Your task to perform on an android device: Empty the shopping cart on amazon. Search for "usb-a to usb-b" on amazon, select the first entry, and add it to the cart. Image 0: 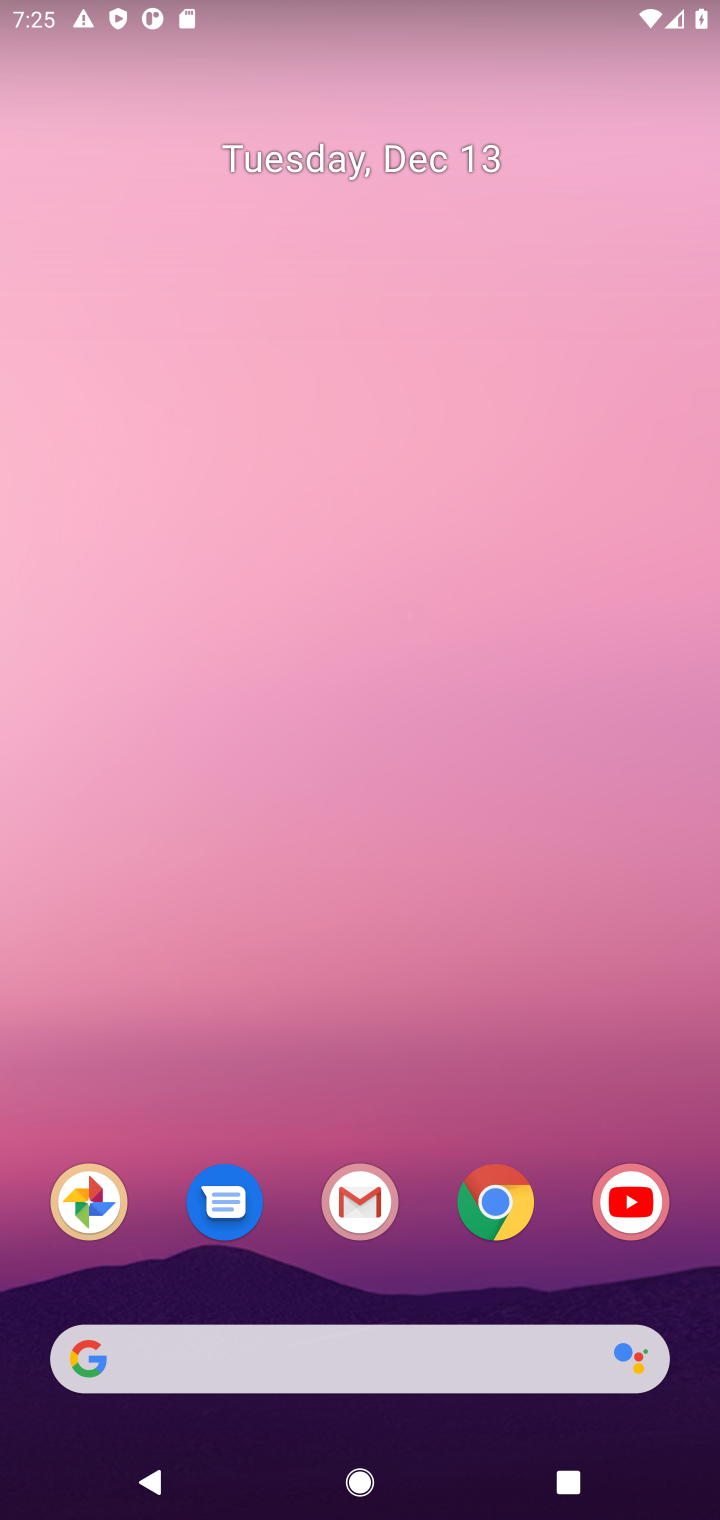
Step 0: click (505, 1207)
Your task to perform on an android device: Empty the shopping cart on amazon. Search for "usb-a to usb-b" on amazon, select the first entry, and add it to the cart. Image 1: 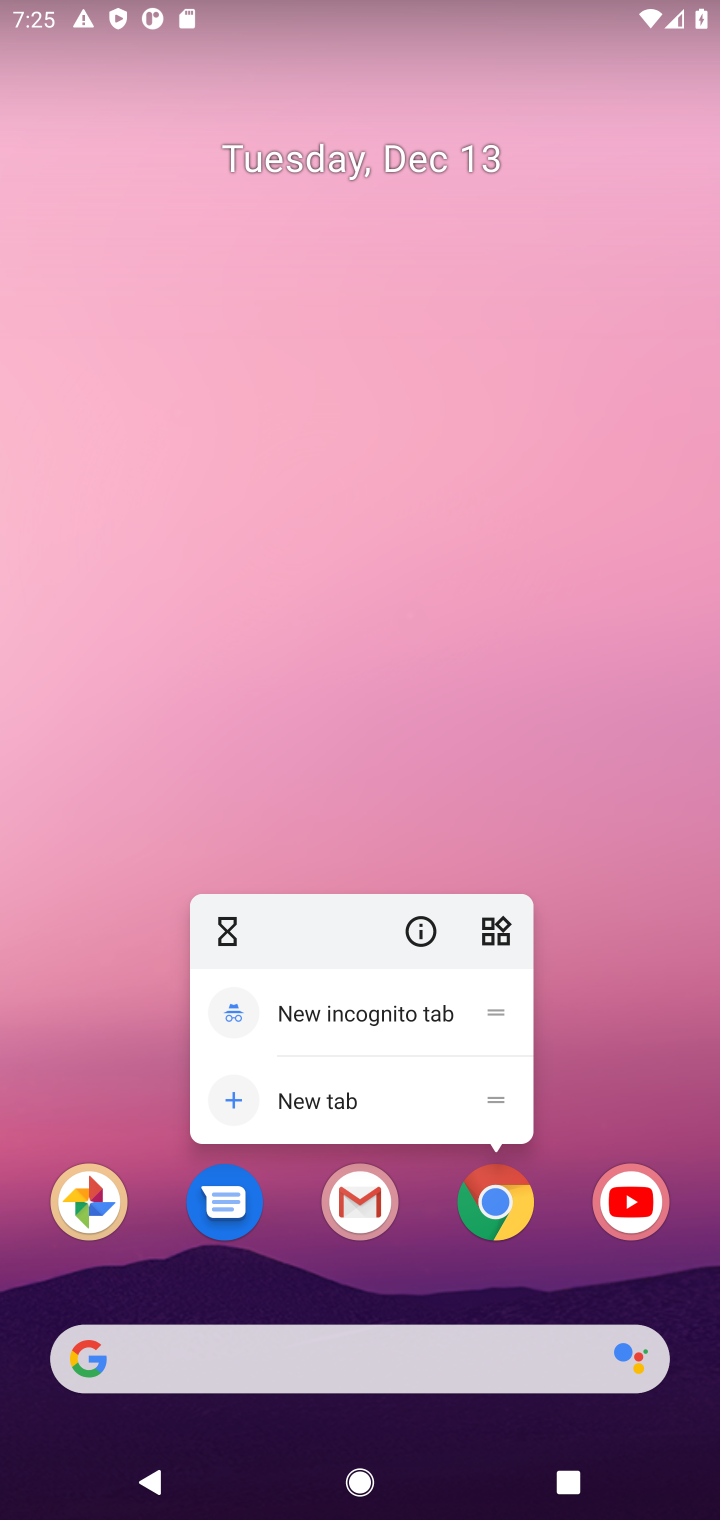
Step 1: click (505, 1207)
Your task to perform on an android device: Empty the shopping cart on amazon. Search for "usb-a to usb-b" on amazon, select the first entry, and add it to the cart. Image 2: 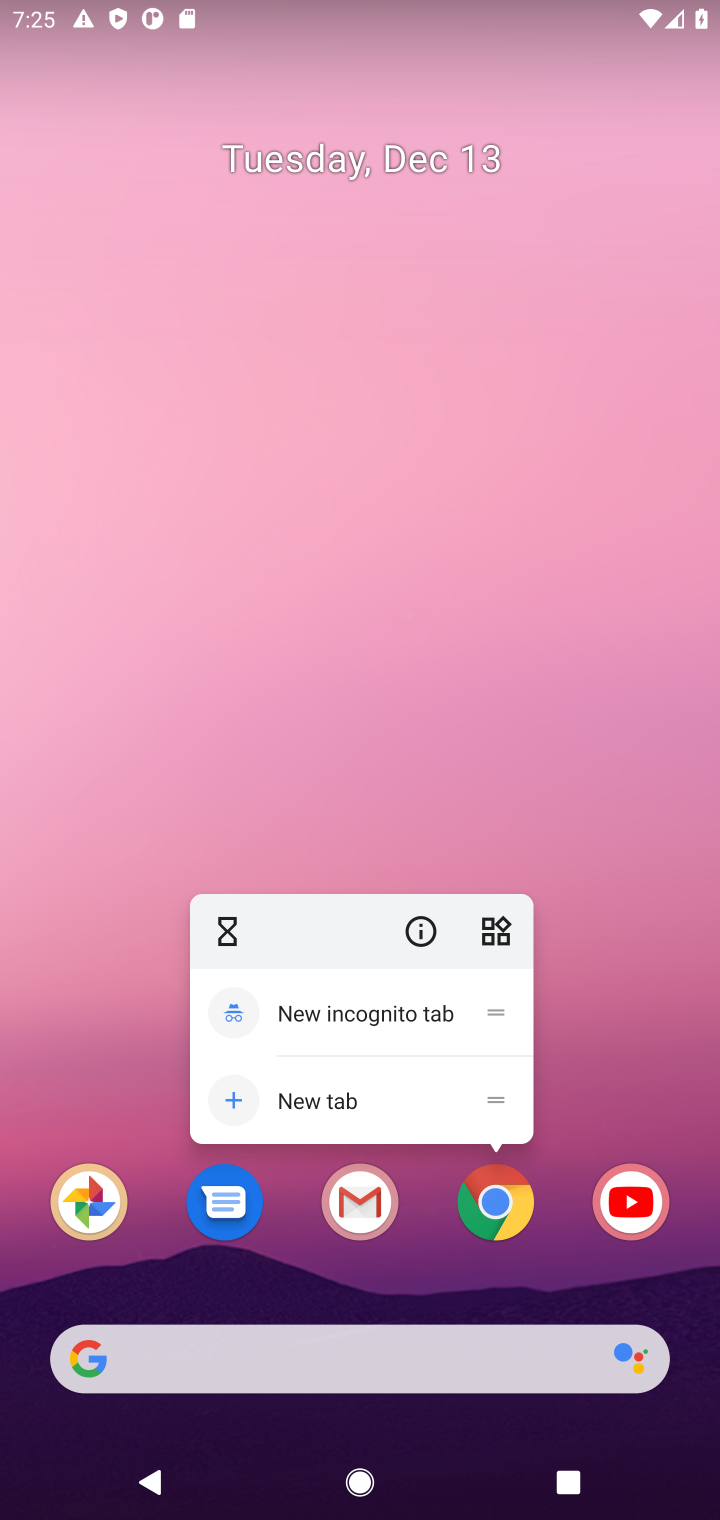
Step 2: click (505, 1207)
Your task to perform on an android device: Empty the shopping cart on amazon. Search for "usb-a to usb-b" on amazon, select the first entry, and add it to the cart. Image 3: 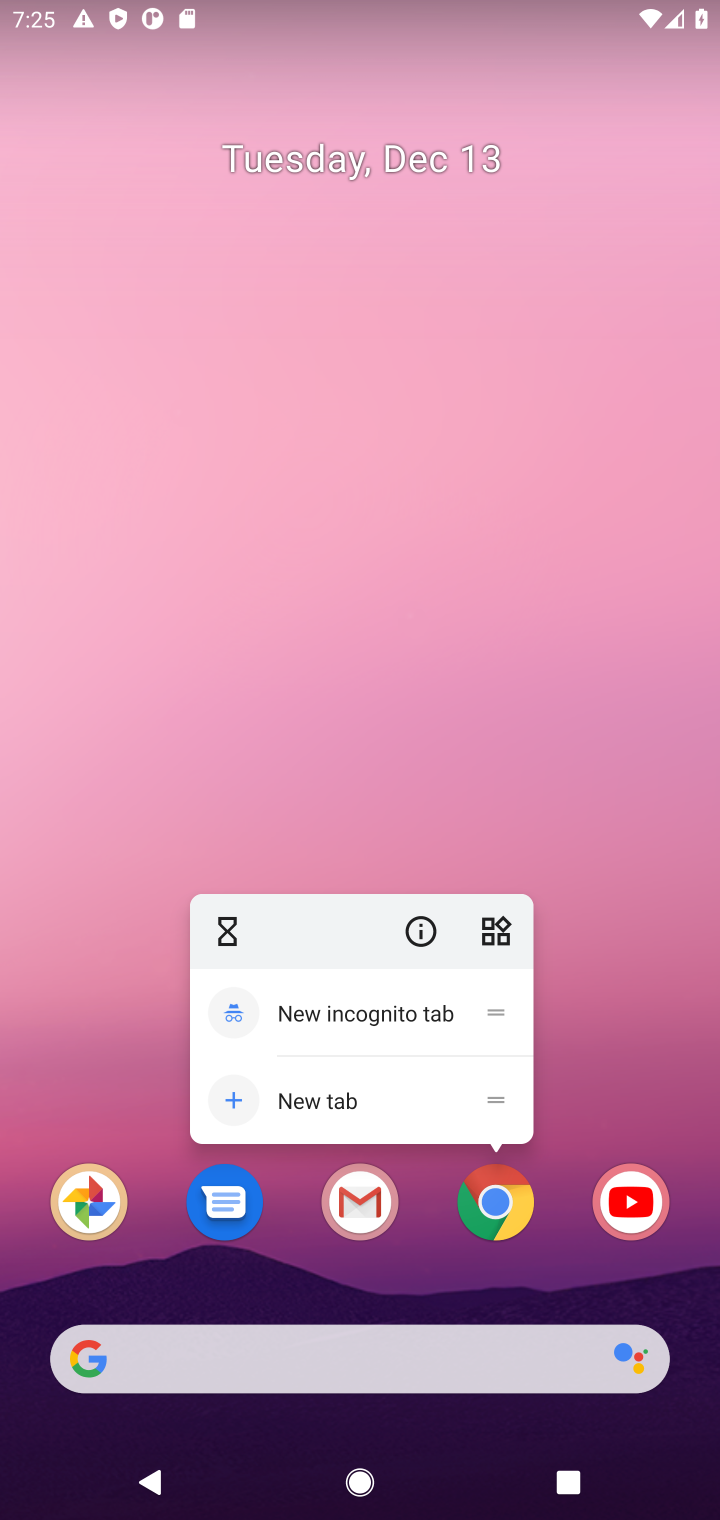
Step 3: click (613, 897)
Your task to perform on an android device: Empty the shopping cart on amazon. Search for "usb-a to usb-b" on amazon, select the first entry, and add it to the cart. Image 4: 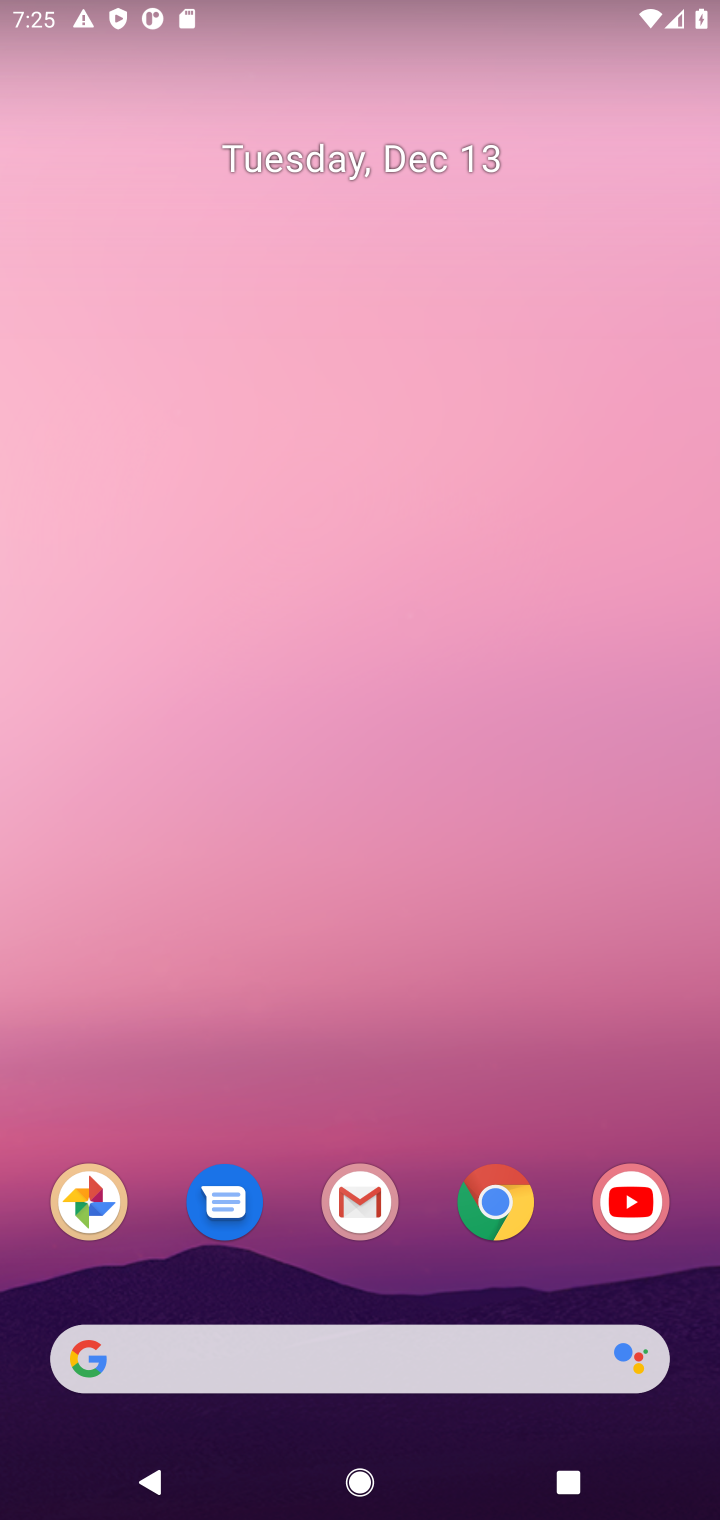
Step 4: click (502, 1207)
Your task to perform on an android device: Empty the shopping cart on amazon. Search for "usb-a to usb-b" on amazon, select the first entry, and add it to the cart. Image 5: 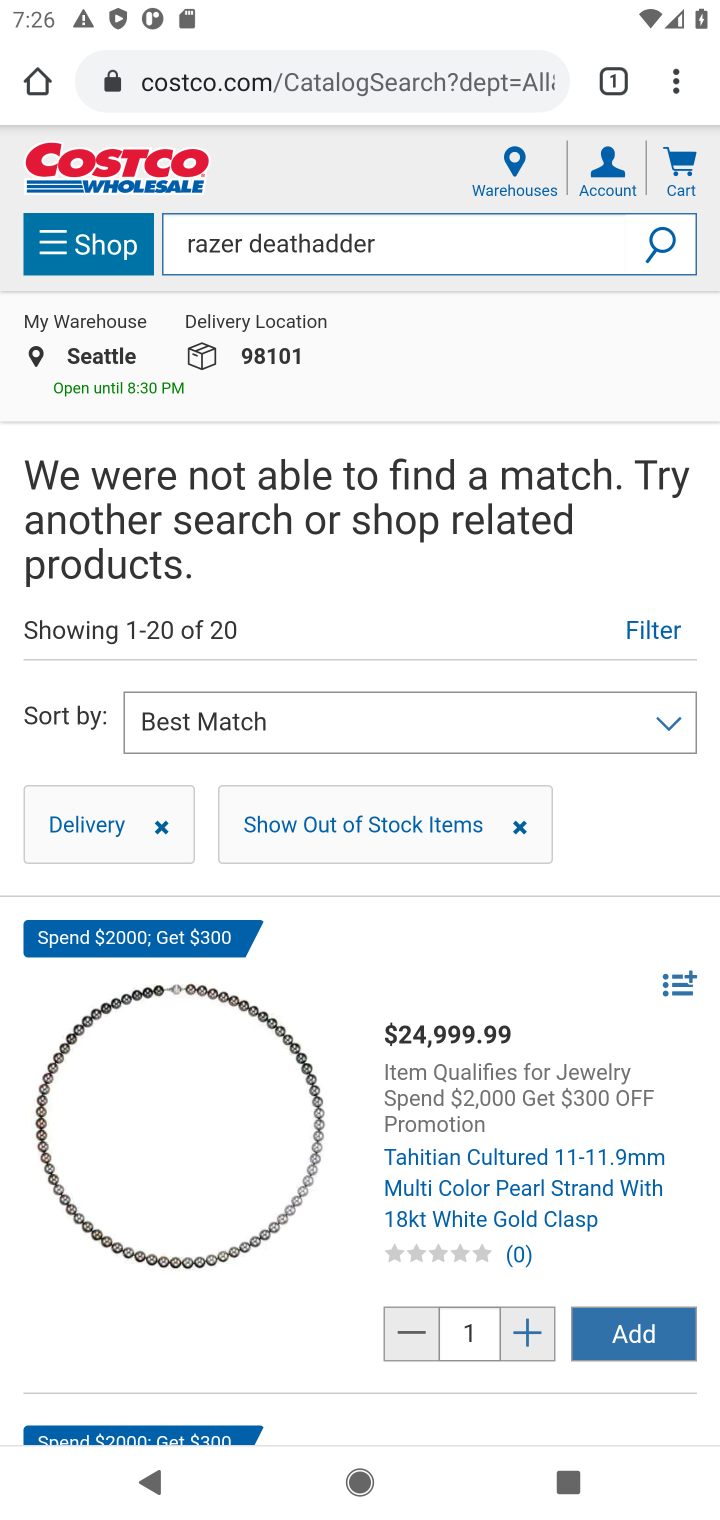
Step 5: click (325, 92)
Your task to perform on an android device: Empty the shopping cart on amazon. Search for "usb-a to usb-b" on amazon, select the first entry, and add it to the cart. Image 6: 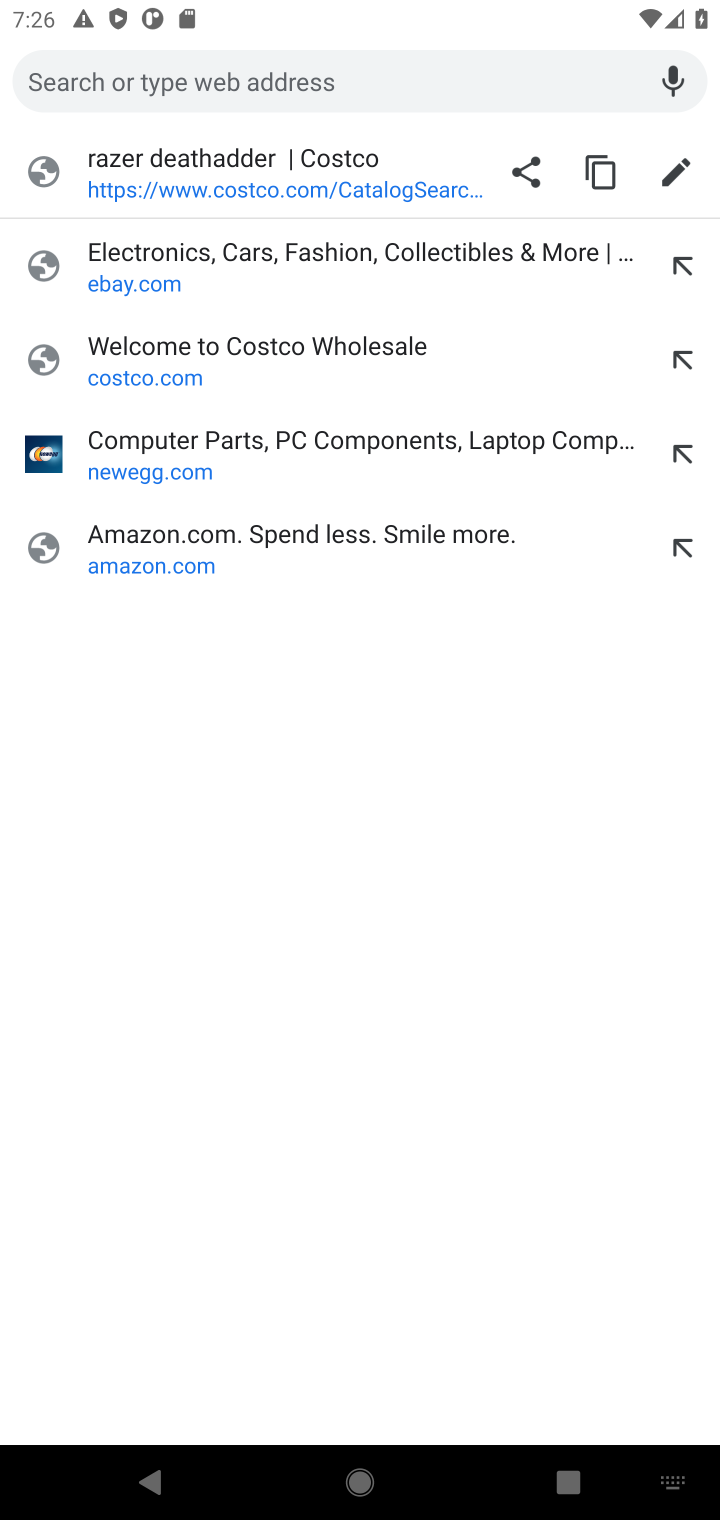
Step 6: click (133, 558)
Your task to perform on an android device: Empty the shopping cart on amazon. Search for "usb-a to usb-b" on amazon, select the first entry, and add it to the cart. Image 7: 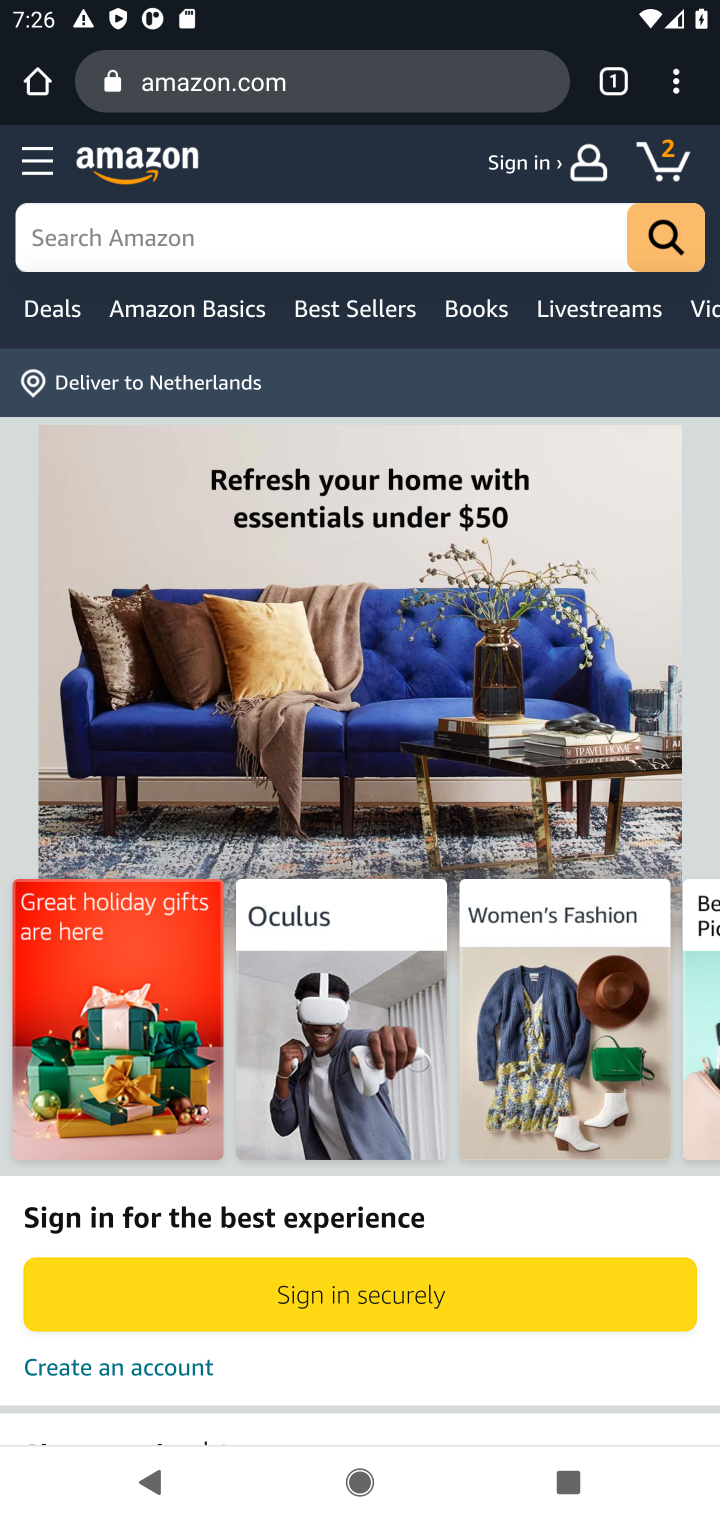
Step 7: click (664, 165)
Your task to perform on an android device: Empty the shopping cart on amazon. Search for "usb-a to usb-b" on amazon, select the first entry, and add it to the cart. Image 8: 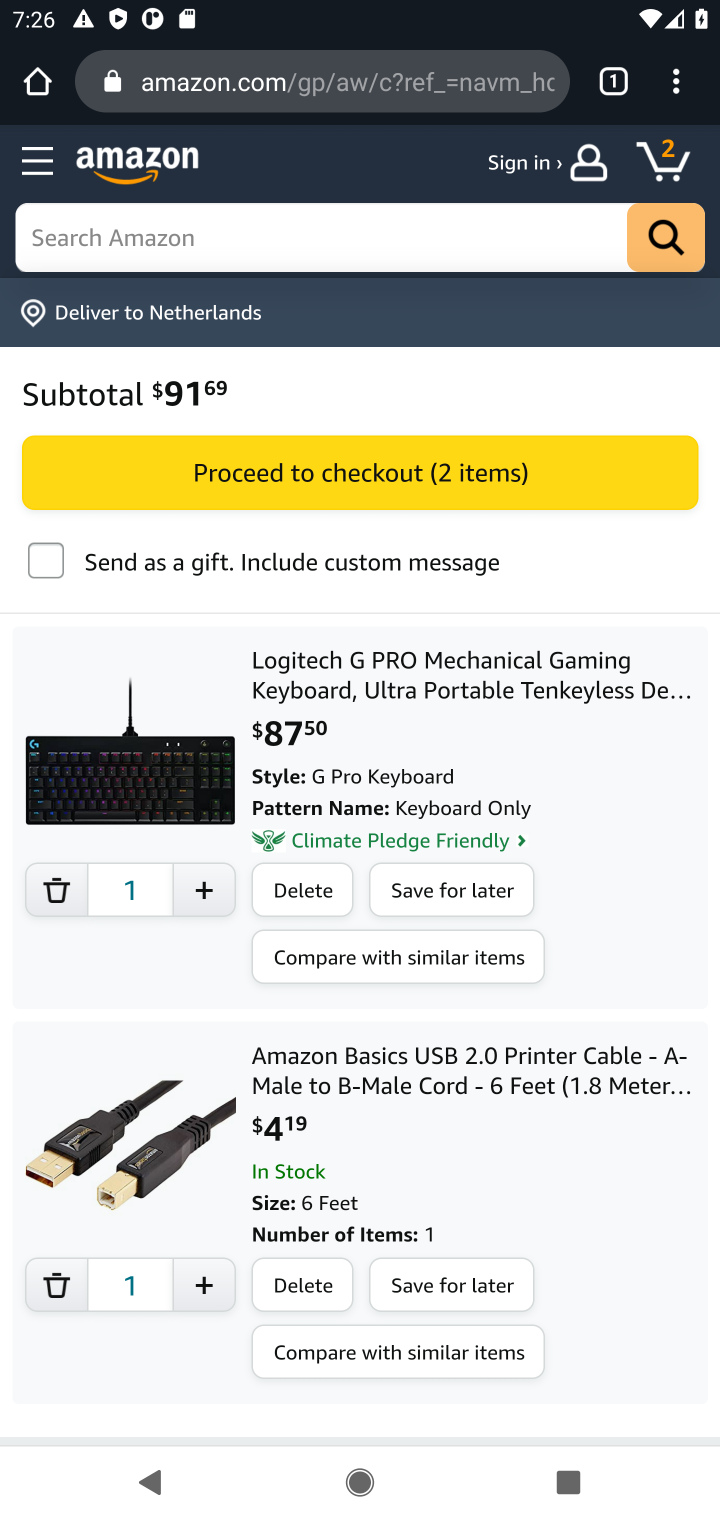
Step 8: click (317, 883)
Your task to perform on an android device: Empty the shopping cart on amazon. Search for "usb-a to usb-b" on amazon, select the first entry, and add it to the cart. Image 9: 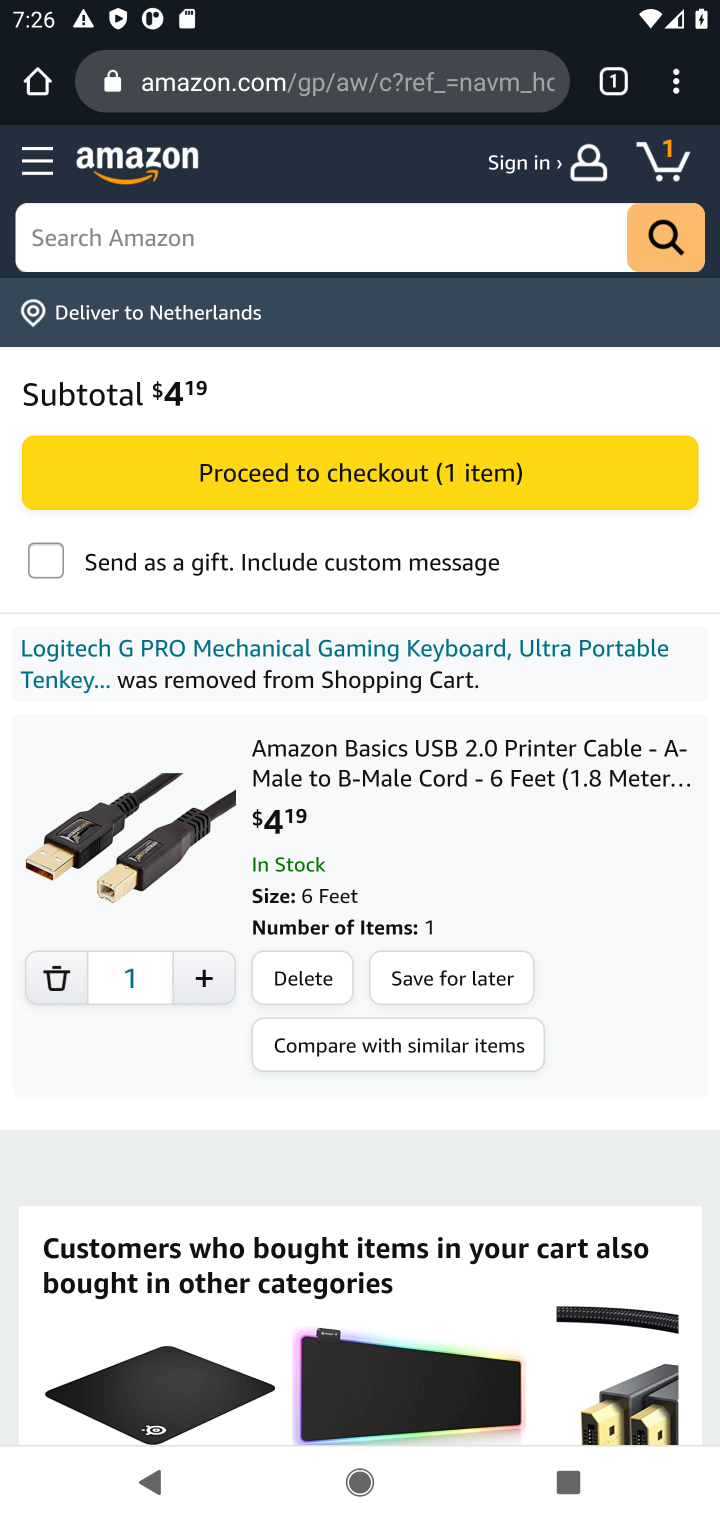
Step 9: click (293, 981)
Your task to perform on an android device: Empty the shopping cart on amazon. Search for "usb-a to usb-b" on amazon, select the first entry, and add it to the cart. Image 10: 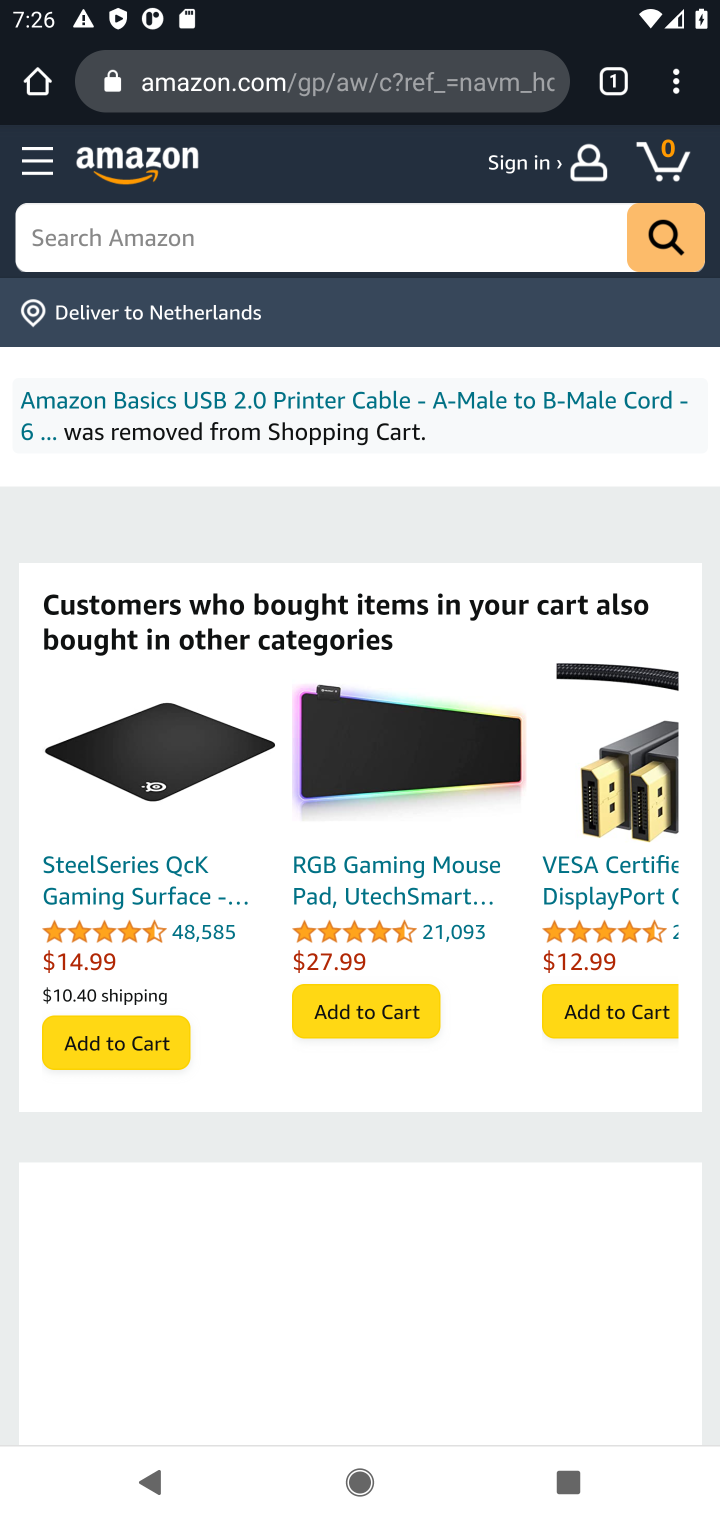
Step 10: click (96, 252)
Your task to perform on an android device: Empty the shopping cart on amazon. Search for "usb-a to usb-b" on amazon, select the first entry, and add it to the cart. Image 11: 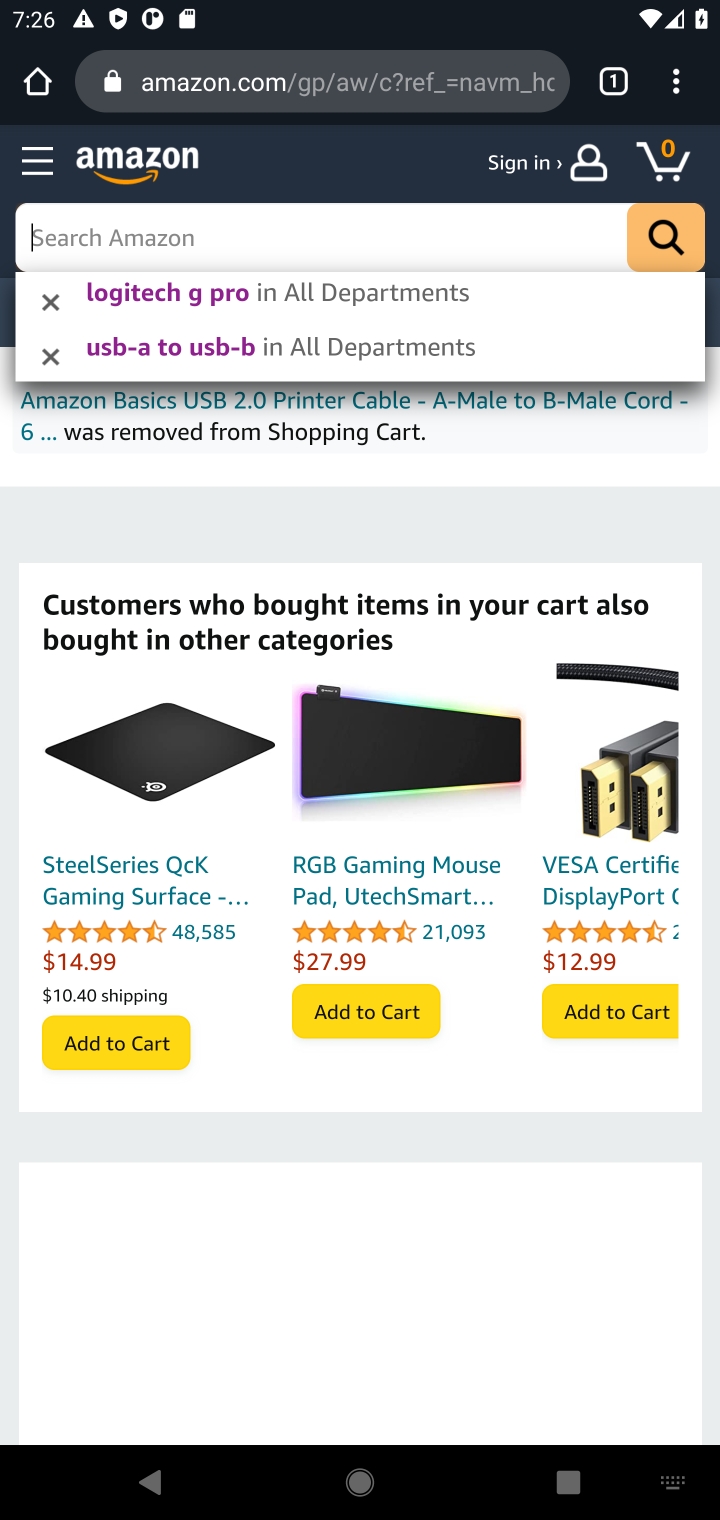
Step 11: type "usb-a to usb-b"
Your task to perform on an android device: Empty the shopping cart on amazon. Search for "usb-a to usb-b" on amazon, select the first entry, and add it to the cart. Image 12: 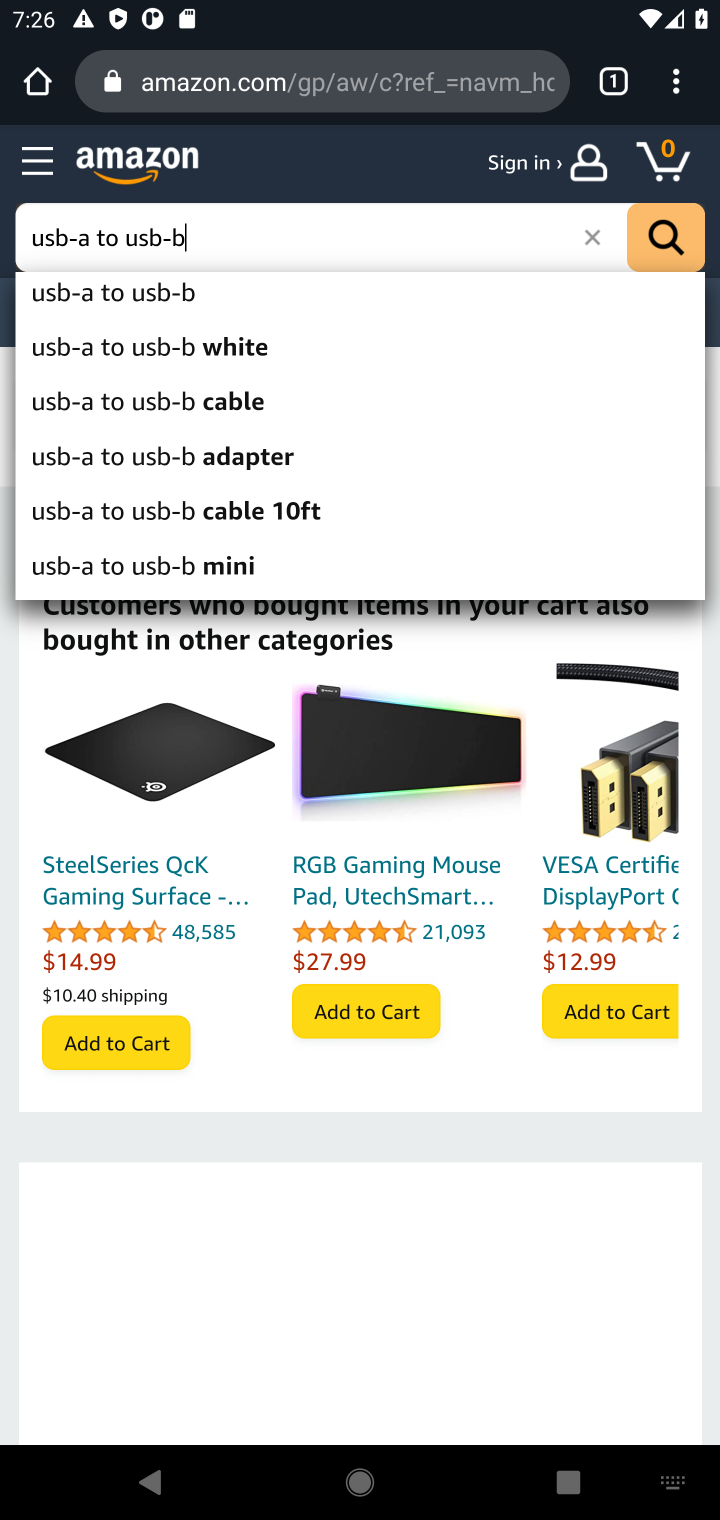
Step 12: click (165, 303)
Your task to perform on an android device: Empty the shopping cart on amazon. Search for "usb-a to usb-b" on amazon, select the first entry, and add it to the cart. Image 13: 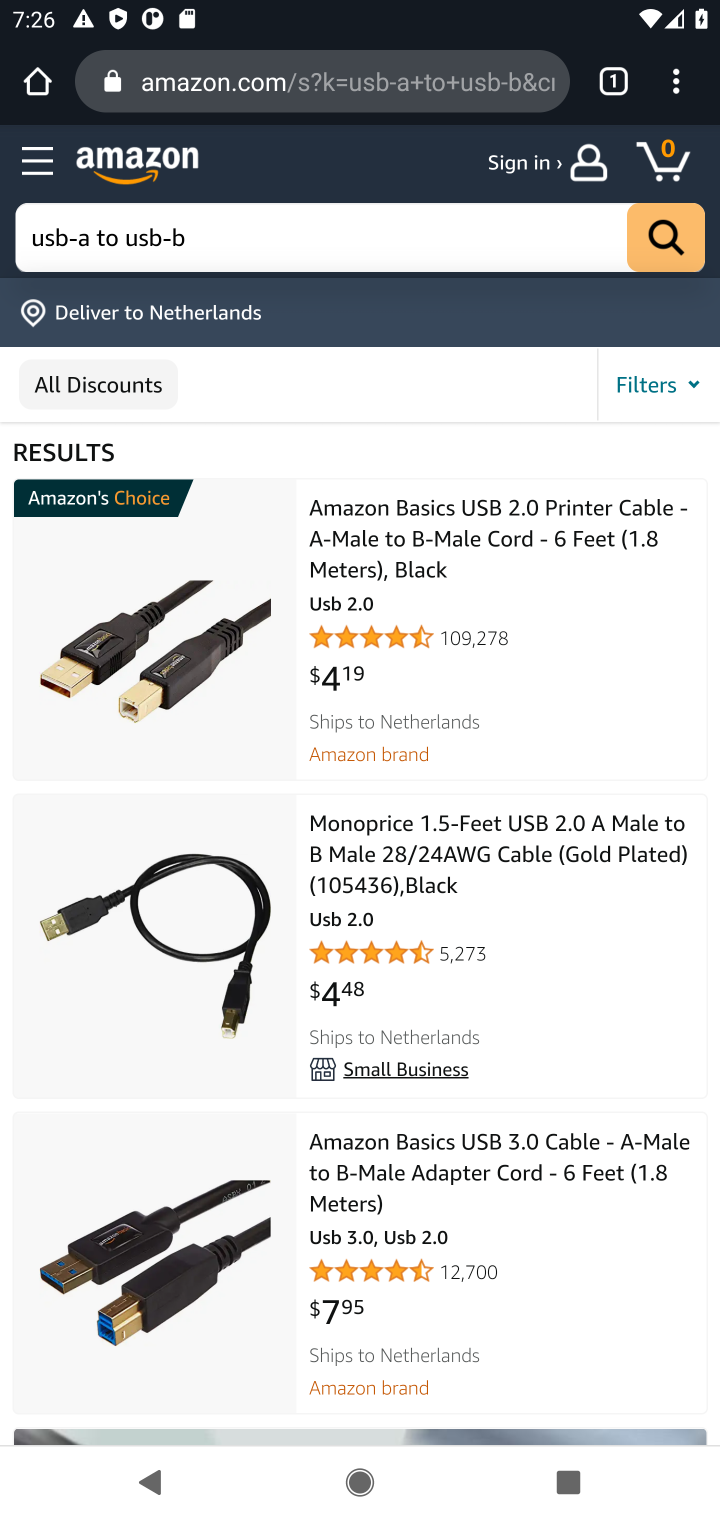
Step 13: click (386, 558)
Your task to perform on an android device: Empty the shopping cart on amazon. Search for "usb-a to usb-b" on amazon, select the first entry, and add it to the cart. Image 14: 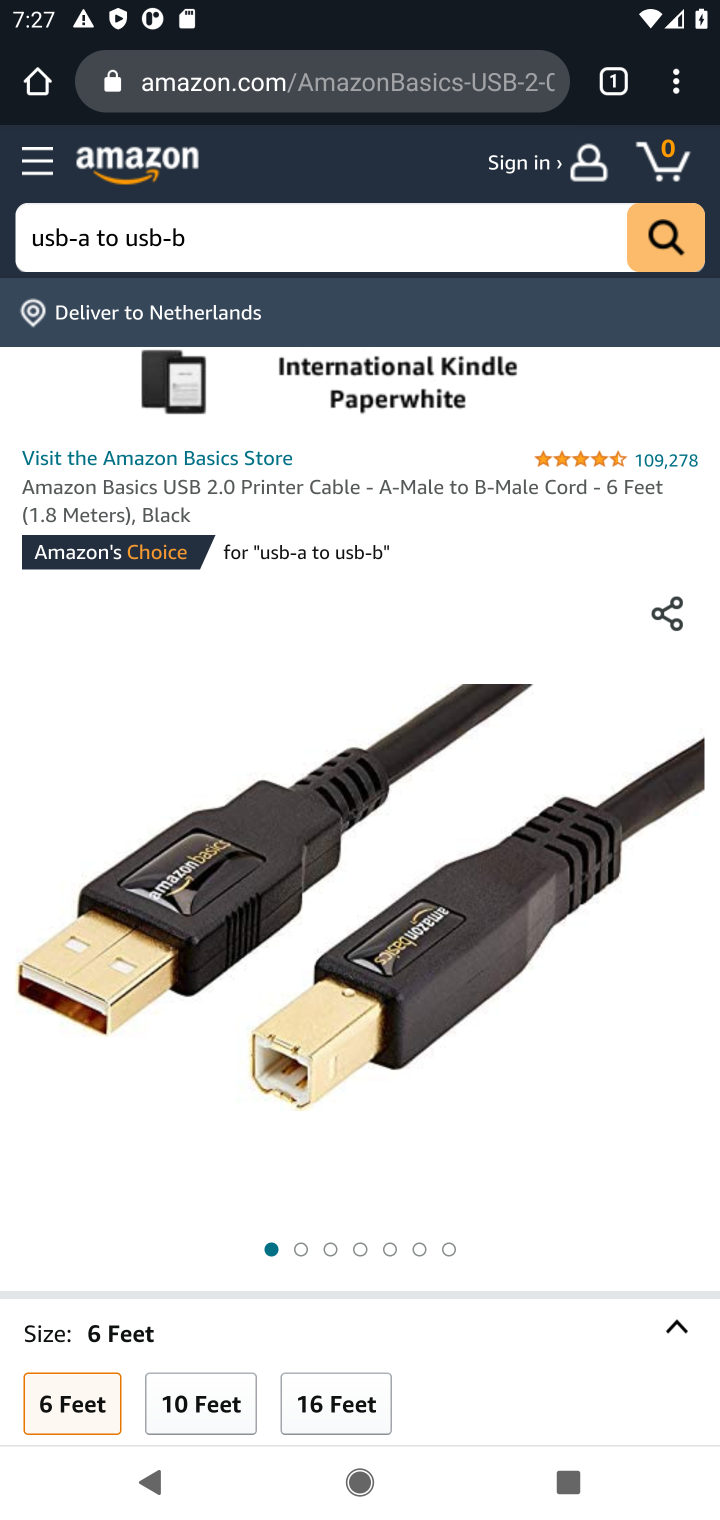
Step 14: drag from (287, 1006) to (234, 601)
Your task to perform on an android device: Empty the shopping cart on amazon. Search for "usb-a to usb-b" on amazon, select the first entry, and add it to the cart. Image 15: 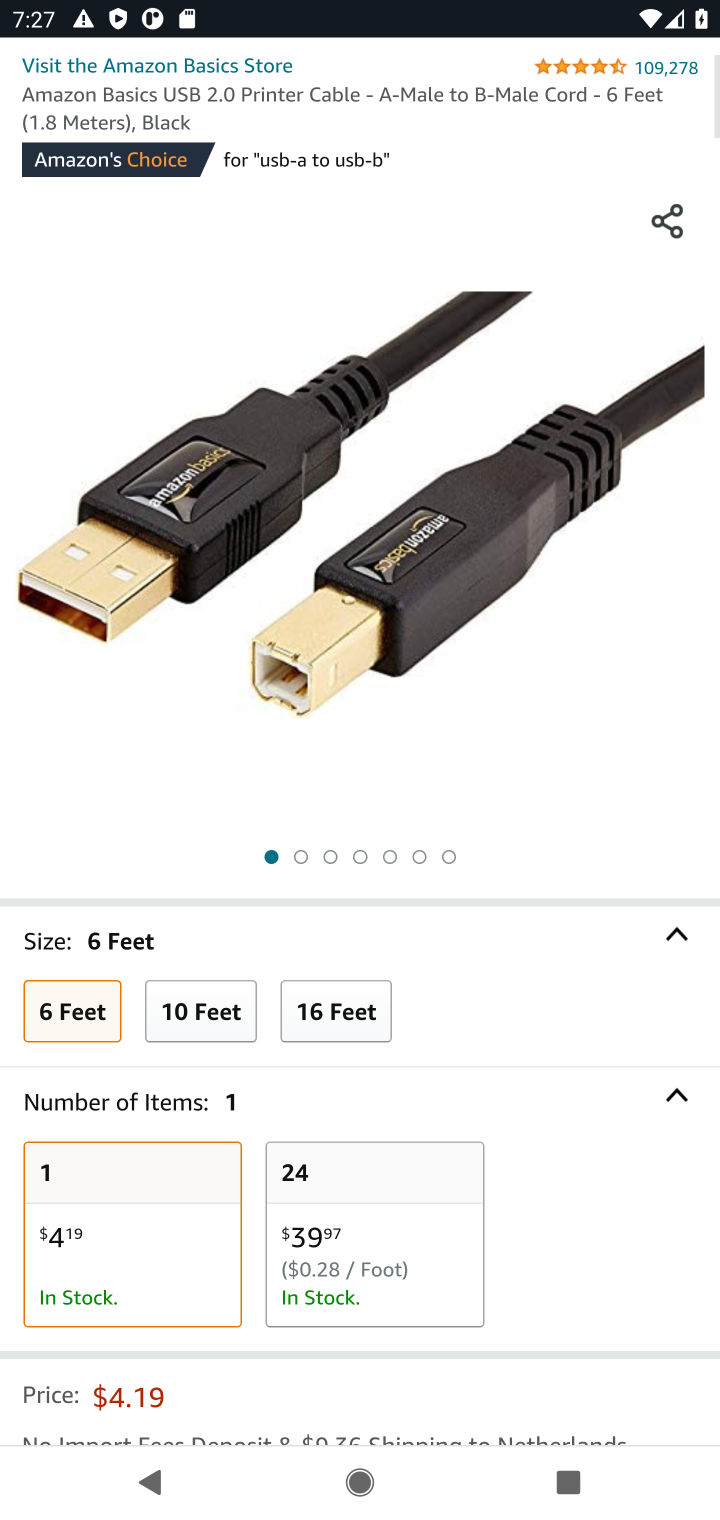
Step 15: drag from (277, 1212) to (270, 621)
Your task to perform on an android device: Empty the shopping cart on amazon. Search for "usb-a to usb-b" on amazon, select the first entry, and add it to the cart. Image 16: 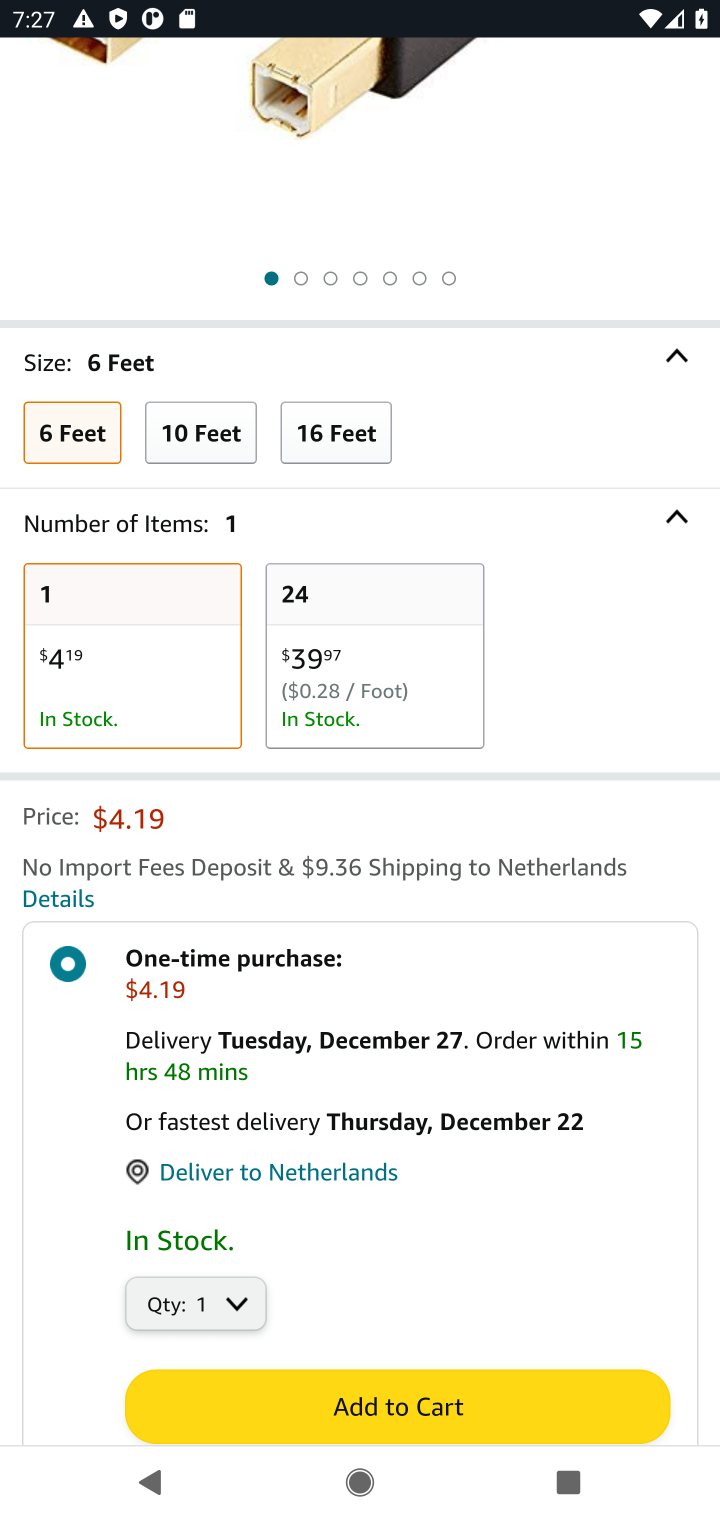
Step 16: click (297, 1385)
Your task to perform on an android device: Empty the shopping cart on amazon. Search for "usb-a to usb-b" on amazon, select the first entry, and add it to the cart. Image 17: 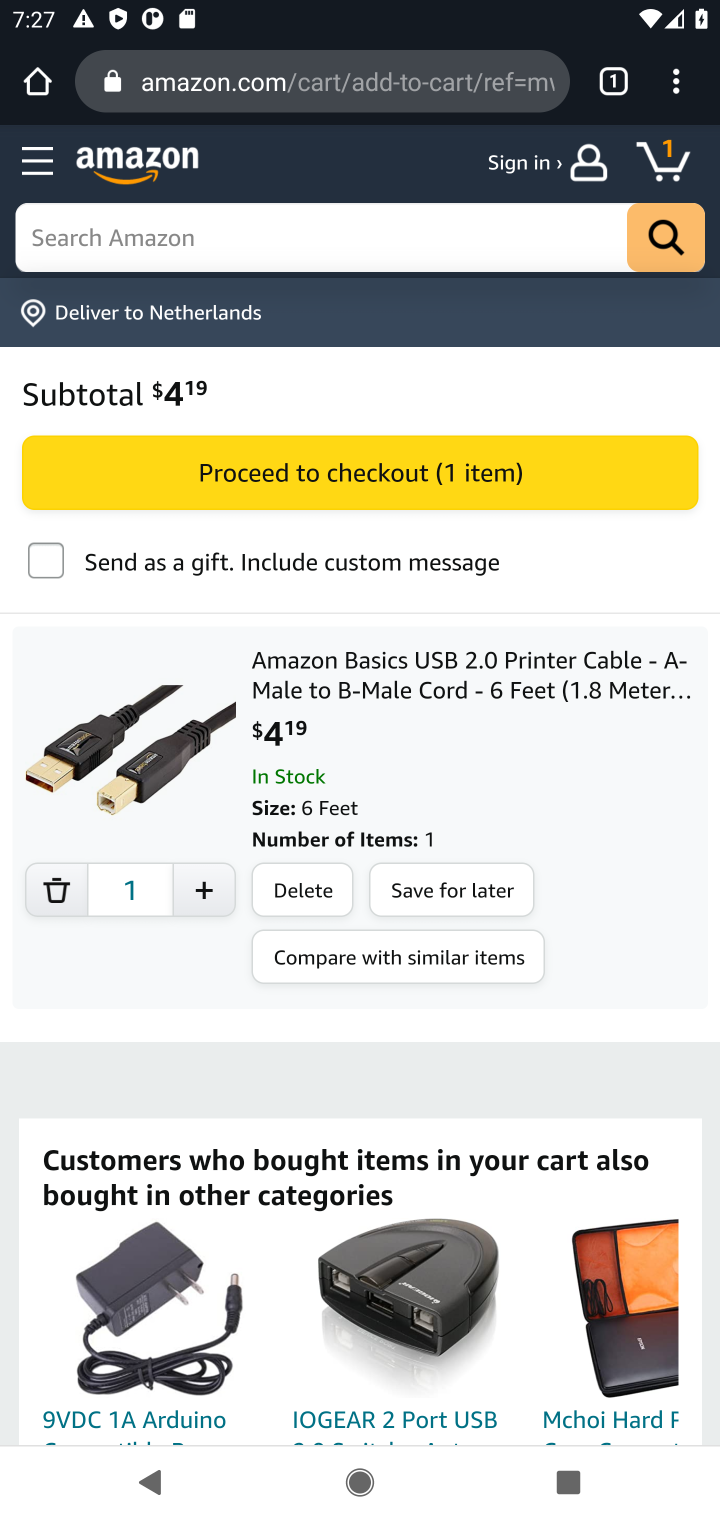
Step 17: task complete